Your task to perform on an android device: turn on improve location accuracy Image 0: 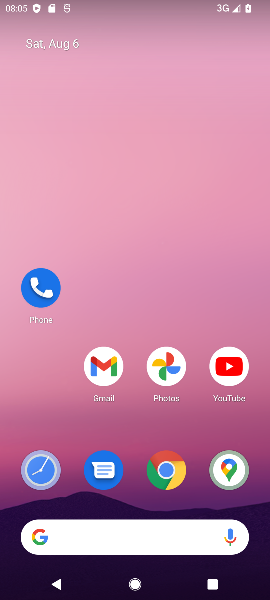
Step 0: press home button
Your task to perform on an android device: turn on improve location accuracy Image 1: 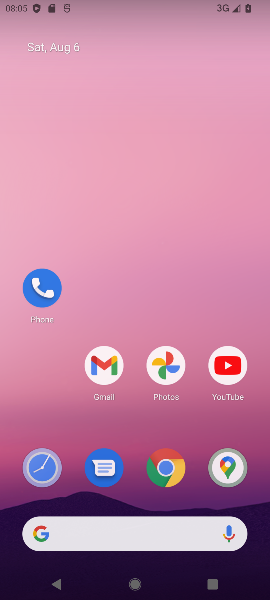
Step 1: drag from (80, 441) to (107, 6)
Your task to perform on an android device: turn on improve location accuracy Image 2: 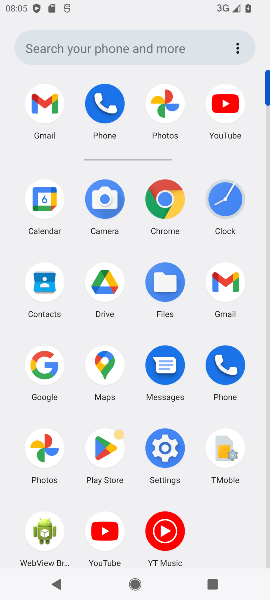
Step 2: click (169, 435)
Your task to perform on an android device: turn on improve location accuracy Image 3: 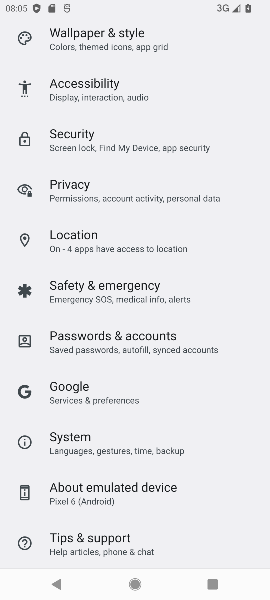
Step 3: click (99, 242)
Your task to perform on an android device: turn on improve location accuracy Image 4: 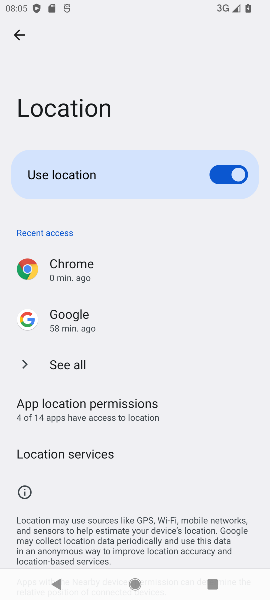
Step 4: task complete